Your task to perform on an android device: Go to Reddit.com Image 0: 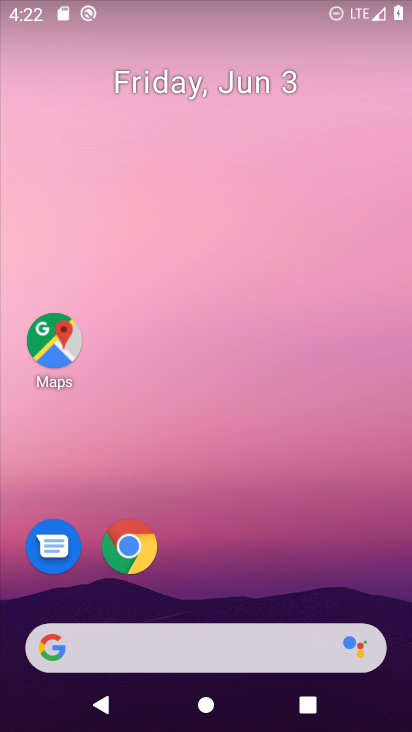
Step 0: click (249, 655)
Your task to perform on an android device: Go to Reddit.com Image 1: 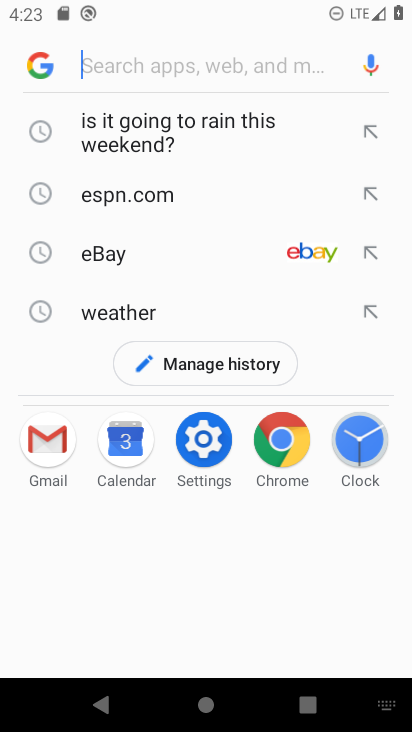
Step 1: type "reddit.com"
Your task to perform on an android device: Go to Reddit.com Image 2: 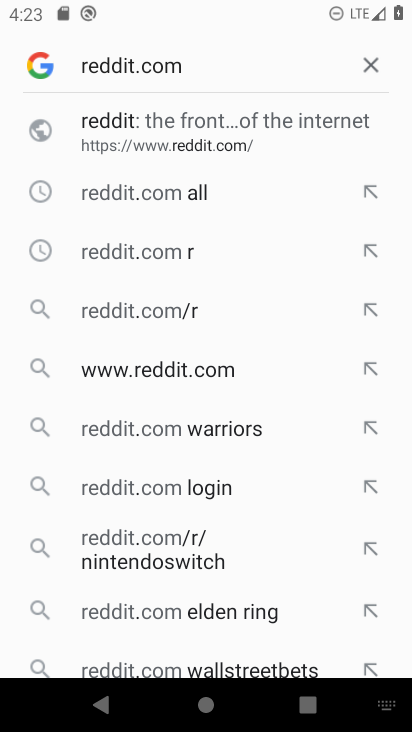
Step 2: click (117, 122)
Your task to perform on an android device: Go to Reddit.com Image 3: 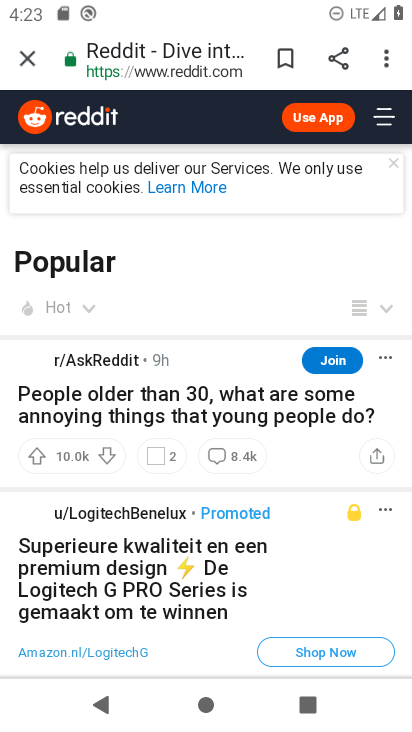
Step 3: task complete